Your task to perform on an android device: search for starred emails in the gmail app Image 0: 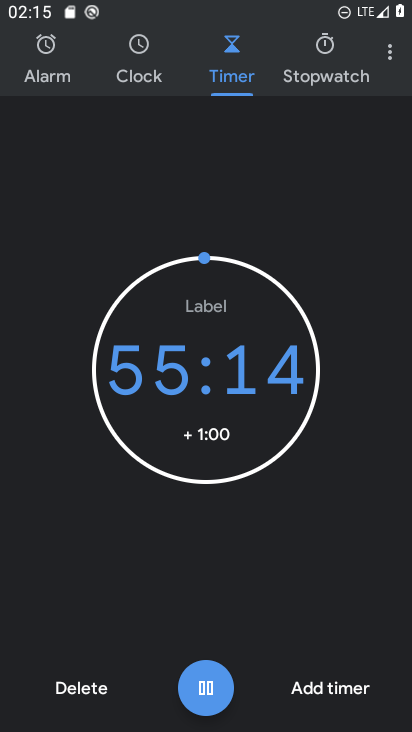
Step 0: press home button
Your task to perform on an android device: search for starred emails in the gmail app Image 1: 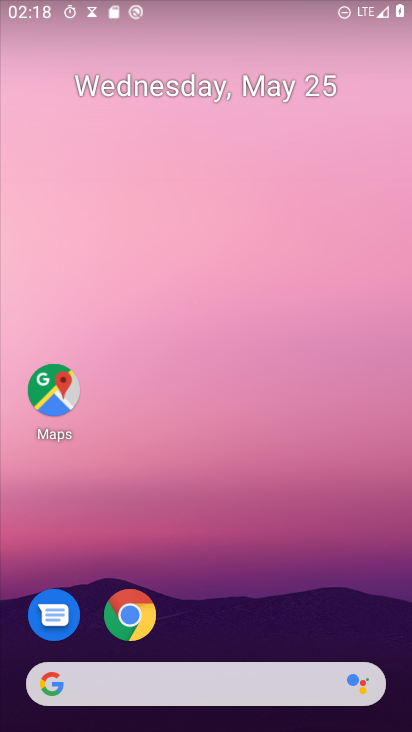
Step 1: drag from (237, 712) to (172, 96)
Your task to perform on an android device: search for starred emails in the gmail app Image 2: 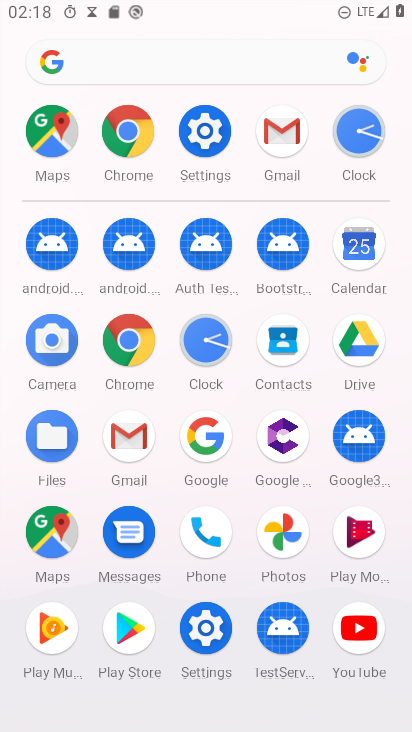
Step 2: click (140, 442)
Your task to perform on an android device: search for starred emails in the gmail app Image 3: 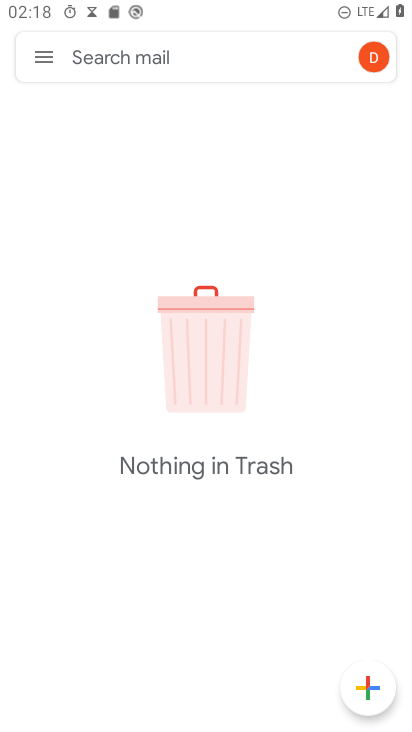
Step 3: click (43, 81)
Your task to perform on an android device: search for starred emails in the gmail app Image 4: 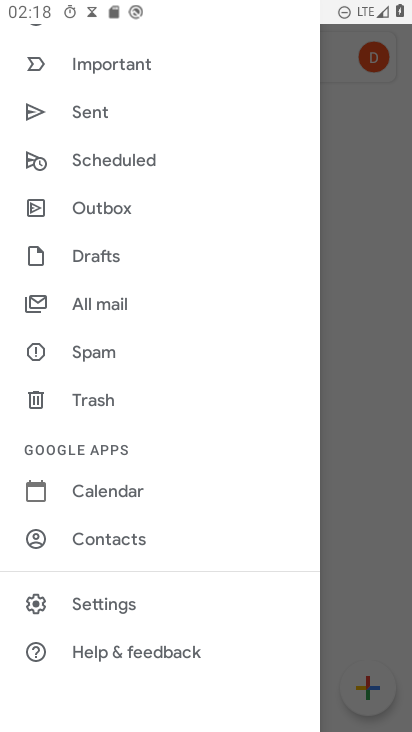
Step 4: drag from (104, 95) to (191, 313)
Your task to perform on an android device: search for starred emails in the gmail app Image 5: 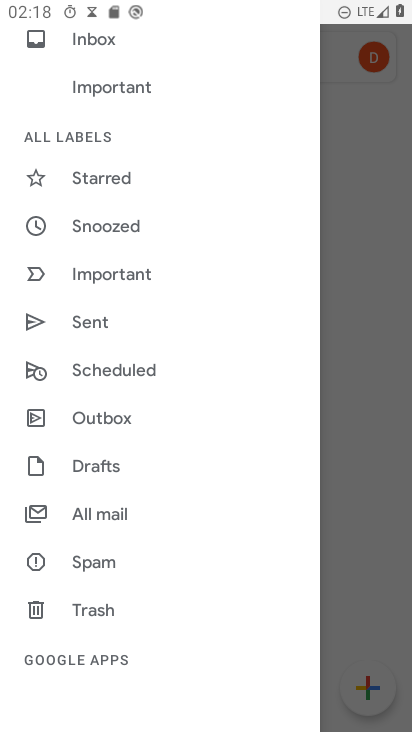
Step 5: click (113, 176)
Your task to perform on an android device: search for starred emails in the gmail app Image 6: 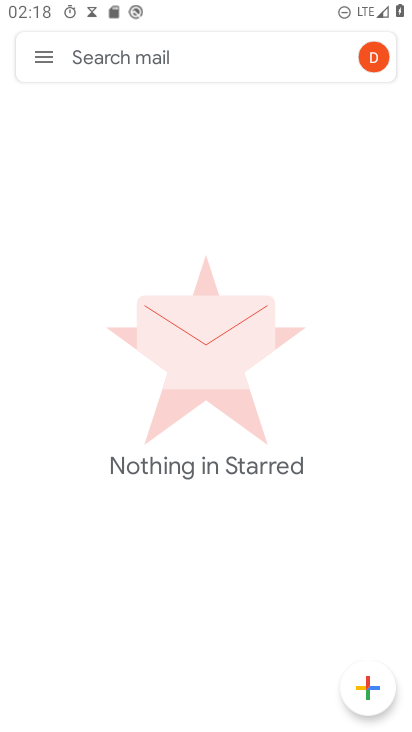
Step 6: task complete